Your task to perform on an android device: turn off airplane mode Image 0: 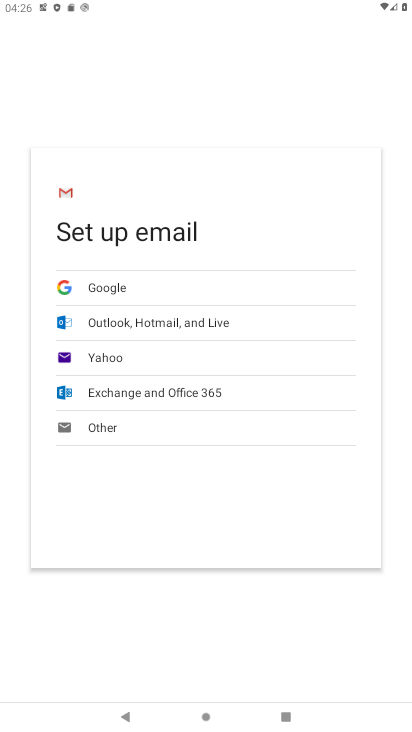
Step 0: press home button
Your task to perform on an android device: turn off airplane mode Image 1: 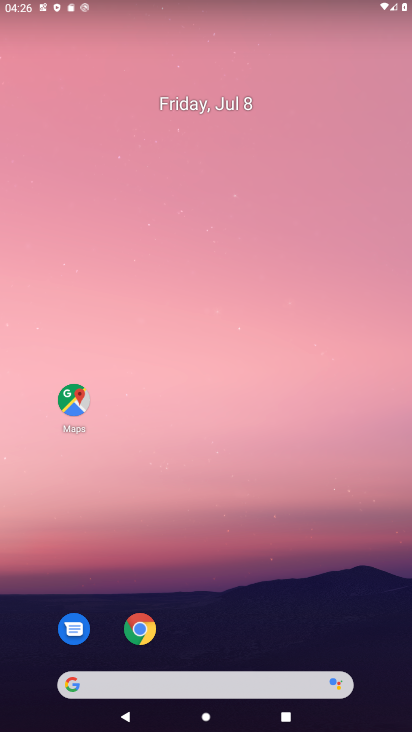
Step 1: drag from (234, 724) to (227, 196)
Your task to perform on an android device: turn off airplane mode Image 2: 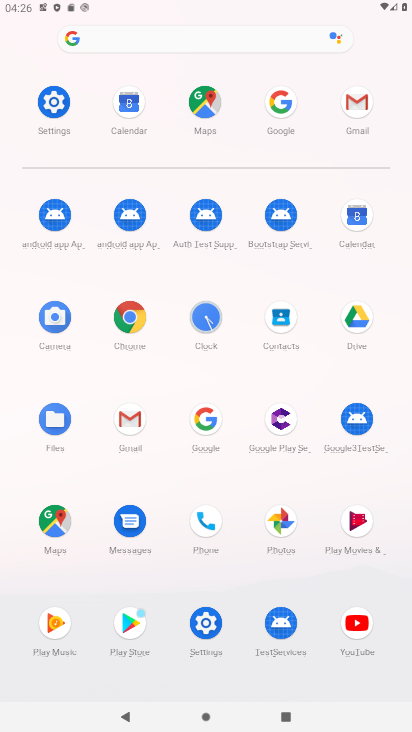
Step 2: click (53, 98)
Your task to perform on an android device: turn off airplane mode Image 3: 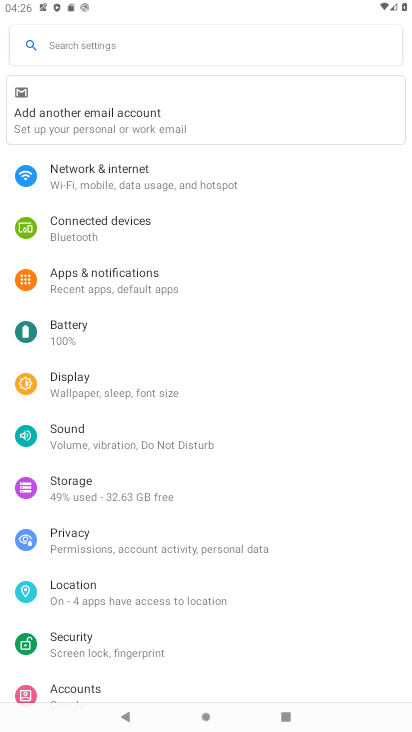
Step 3: click (105, 172)
Your task to perform on an android device: turn off airplane mode Image 4: 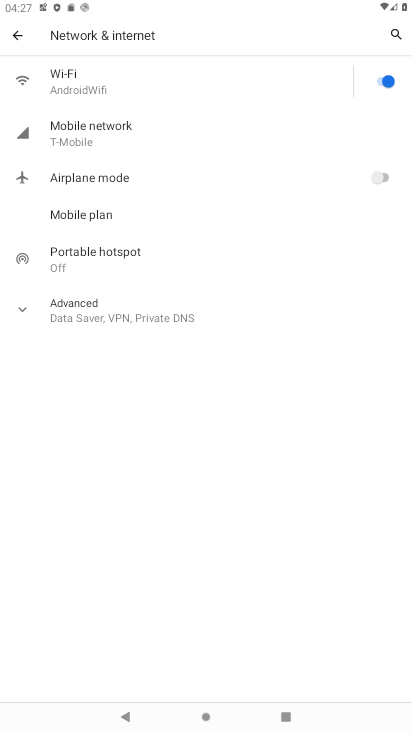
Step 4: task complete